Your task to perform on an android device: turn off translation in the chrome app Image 0: 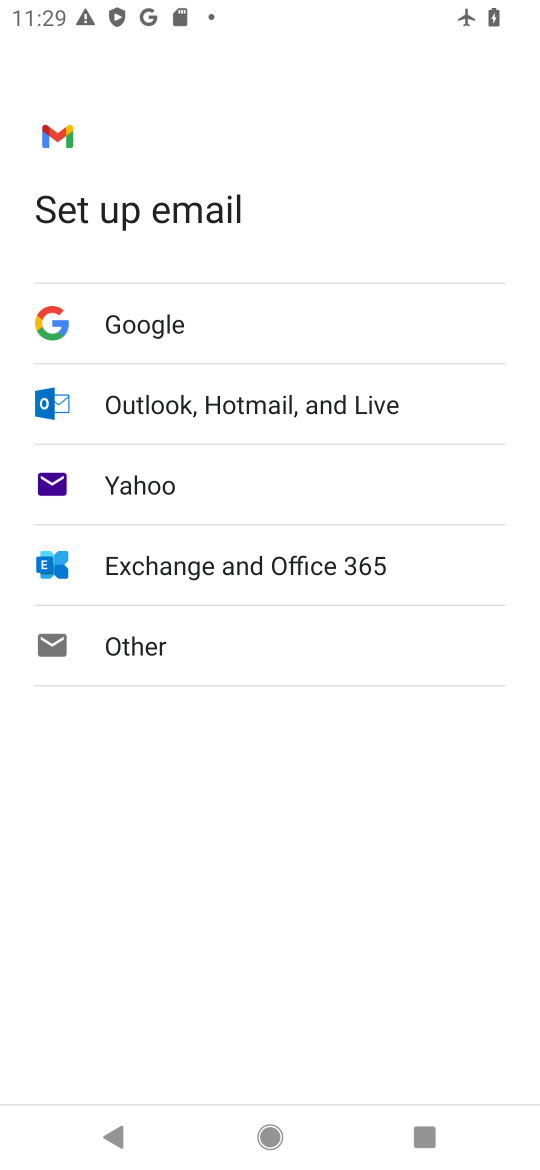
Step 0: press home button
Your task to perform on an android device: turn off translation in the chrome app Image 1: 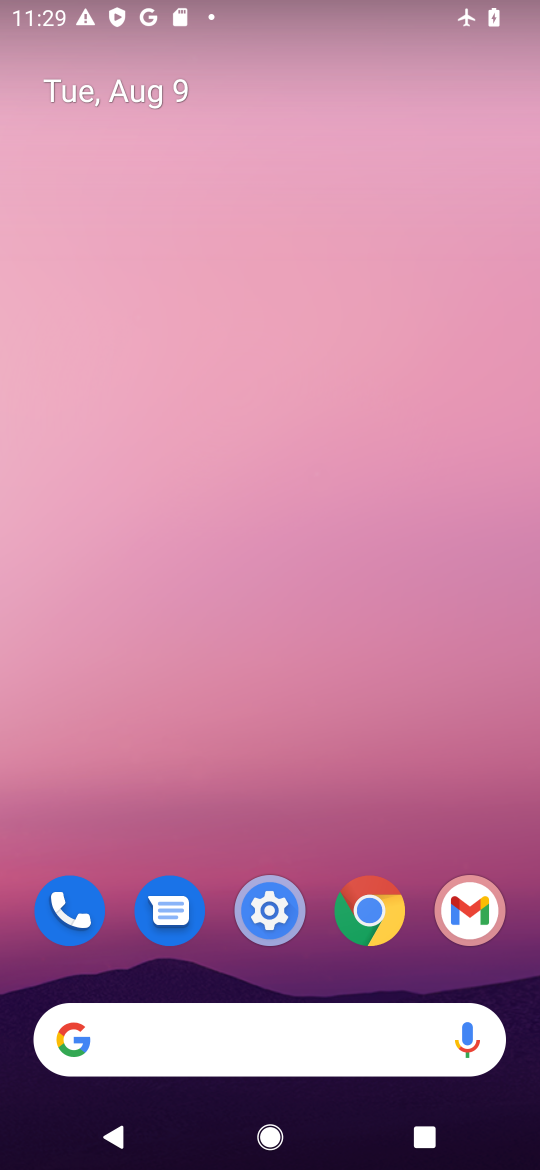
Step 1: click (358, 914)
Your task to perform on an android device: turn off translation in the chrome app Image 2: 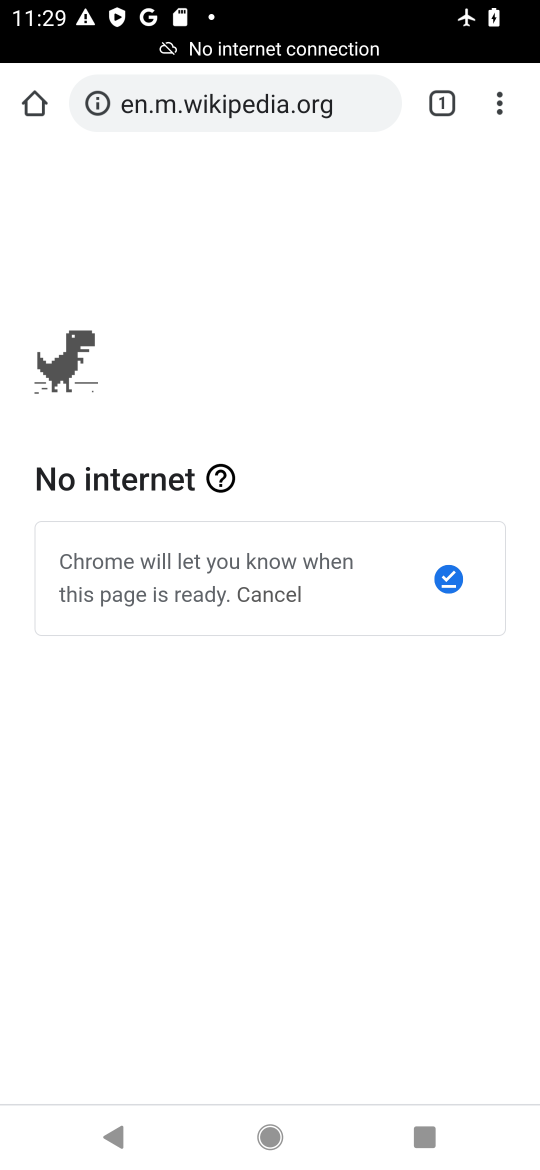
Step 2: drag from (508, 18) to (373, 466)
Your task to perform on an android device: turn off translation in the chrome app Image 3: 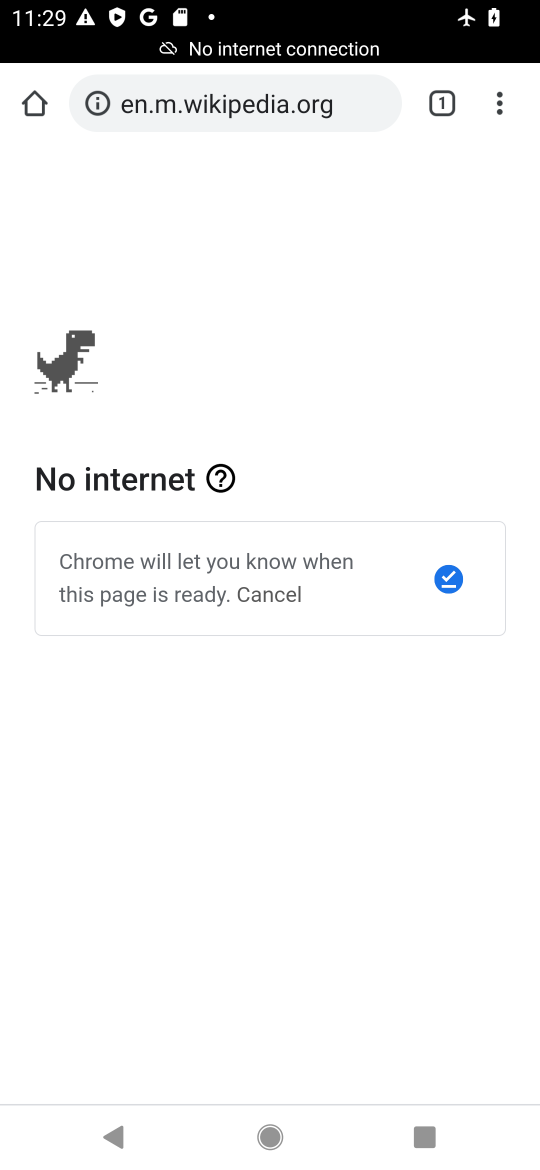
Step 3: click (495, 106)
Your task to perform on an android device: turn off translation in the chrome app Image 4: 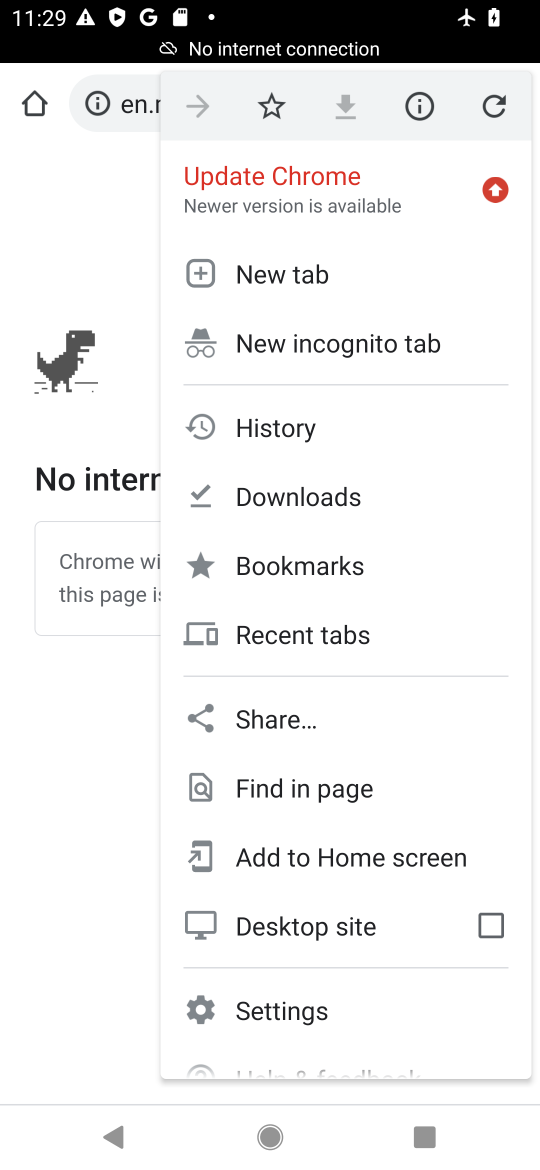
Step 4: click (259, 1002)
Your task to perform on an android device: turn off translation in the chrome app Image 5: 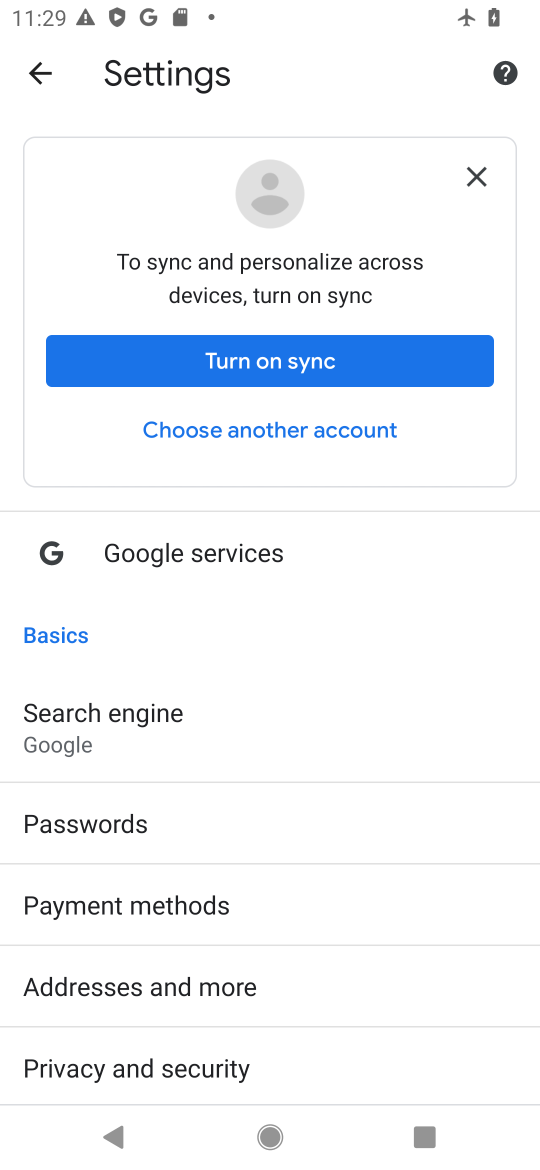
Step 5: drag from (17, 1085) to (358, 277)
Your task to perform on an android device: turn off translation in the chrome app Image 6: 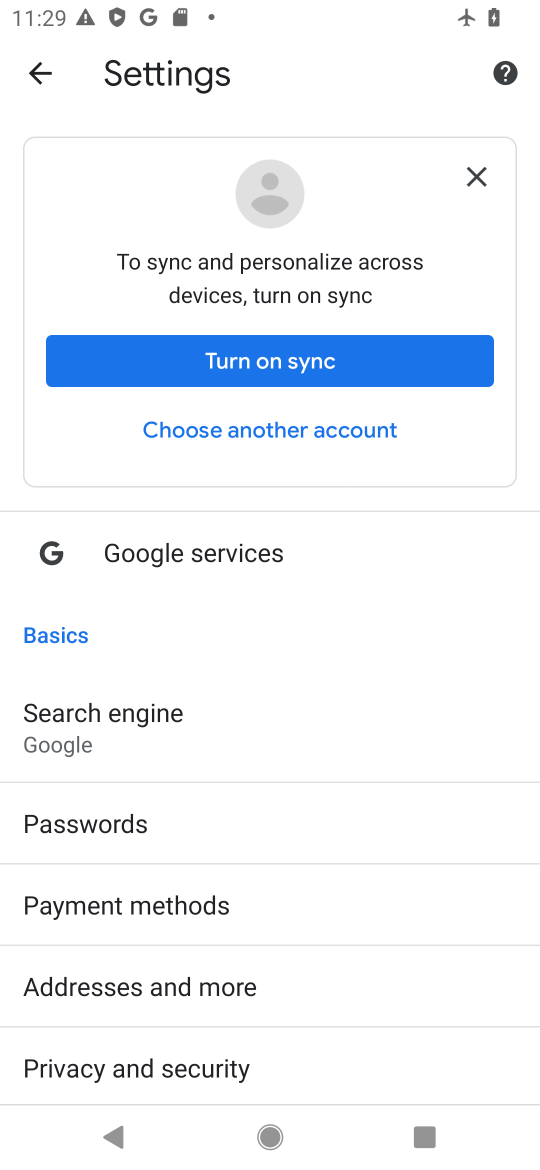
Step 6: click (471, 175)
Your task to perform on an android device: turn off translation in the chrome app Image 7: 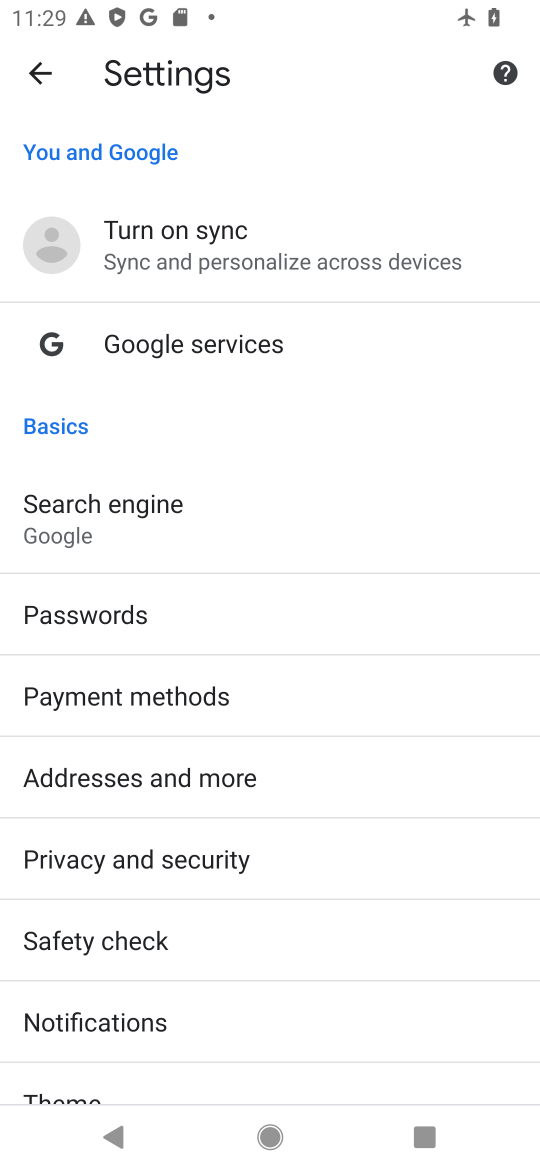
Step 7: task complete